Your task to perform on an android device: change notifications settings Image 0: 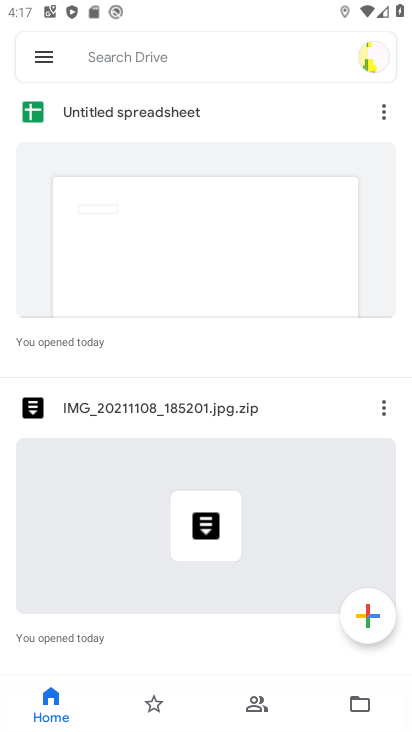
Step 0: press home button
Your task to perform on an android device: change notifications settings Image 1: 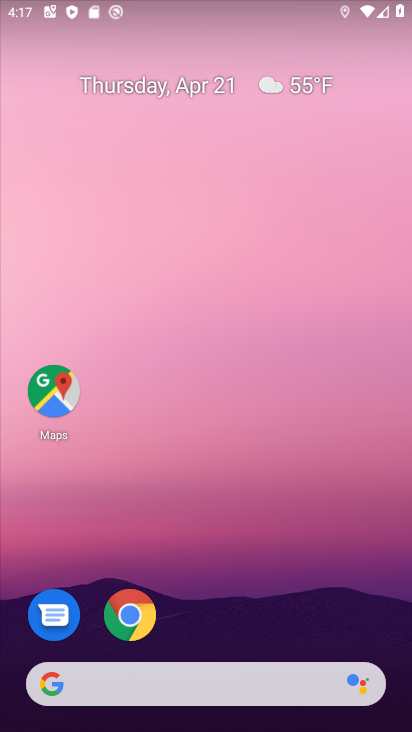
Step 1: drag from (230, 620) to (211, 122)
Your task to perform on an android device: change notifications settings Image 2: 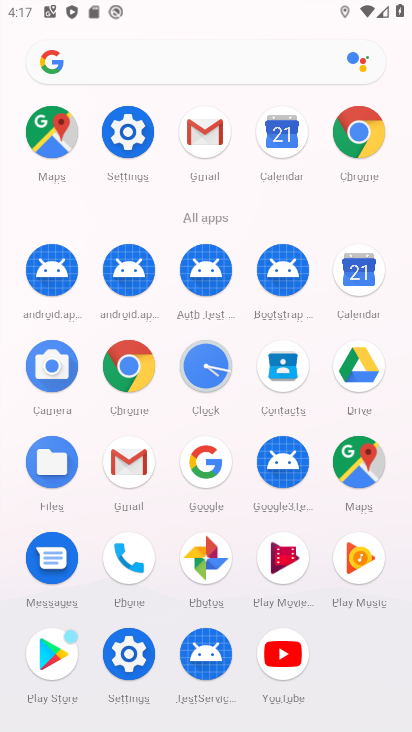
Step 2: click (138, 146)
Your task to perform on an android device: change notifications settings Image 3: 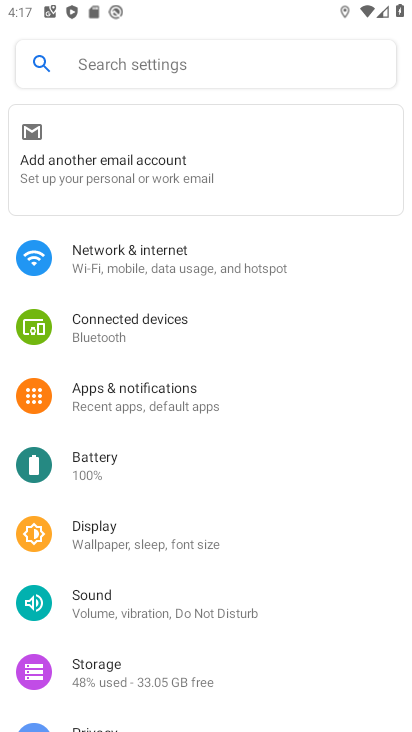
Step 3: click (152, 403)
Your task to perform on an android device: change notifications settings Image 4: 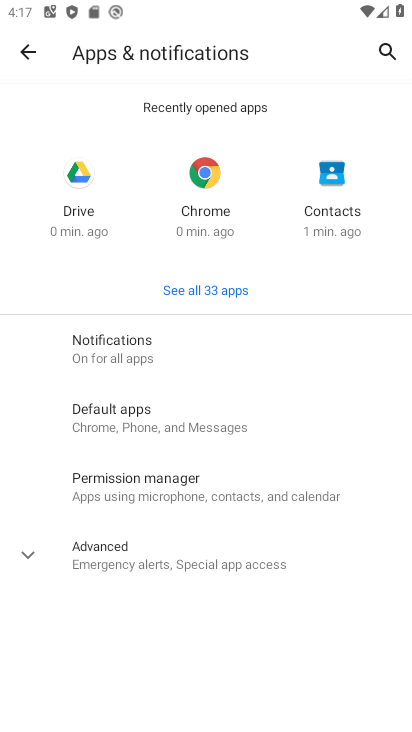
Step 4: click (141, 367)
Your task to perform on an android device: change notifications settings Image 5: 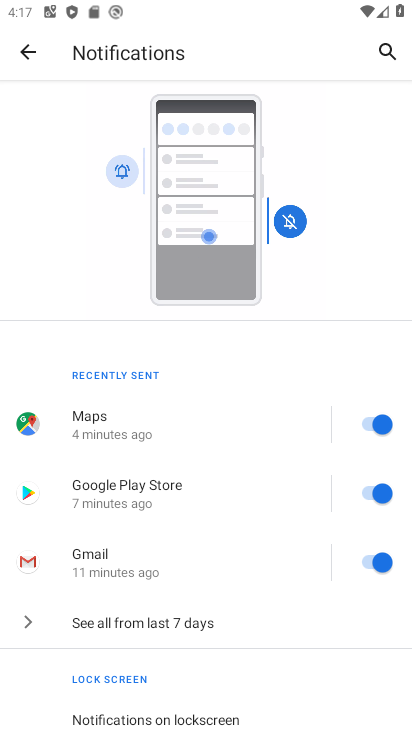
Step 5: drag from (225, 581) to (239, 177)
Your task to perform on an android device: change notifications settings Image 6: 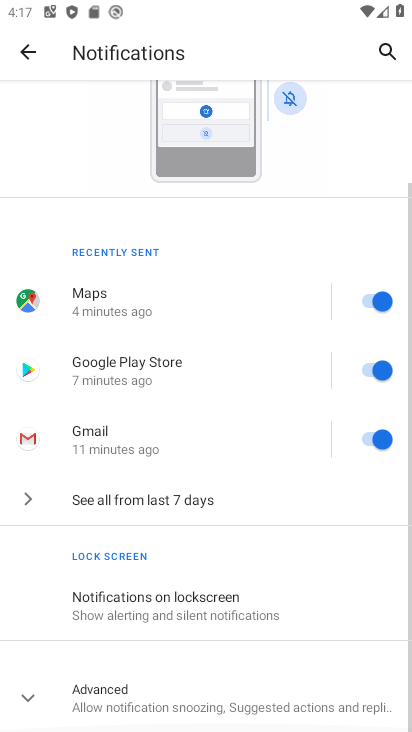
Step 6: drag from (251, 525) to (266, 249)
Your task to perform on an android device: change notifications settings Image 7: 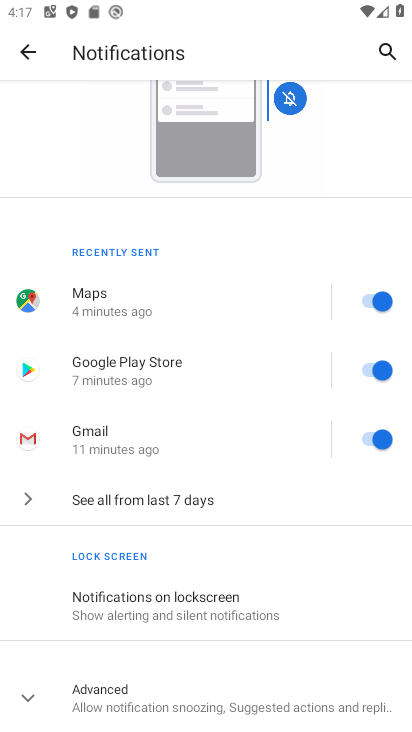
Step 7: click (202, 683)
Your task to perform on an android device: change notifications settings Image 8: 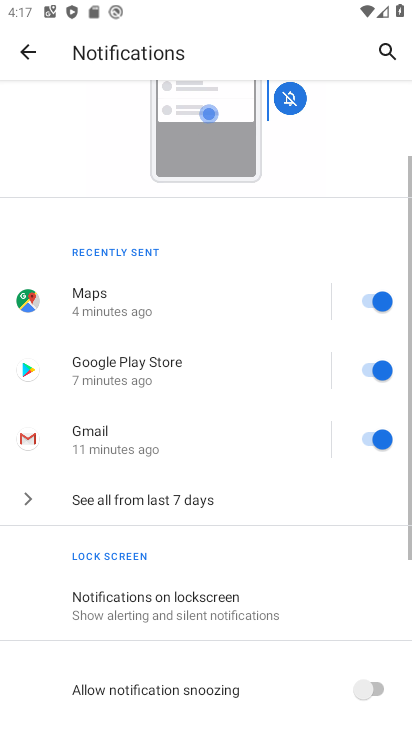
Step 8: drag from (207, 680) to (247, 255)
Your task to perform on an android device: change notifications settings Image 9: 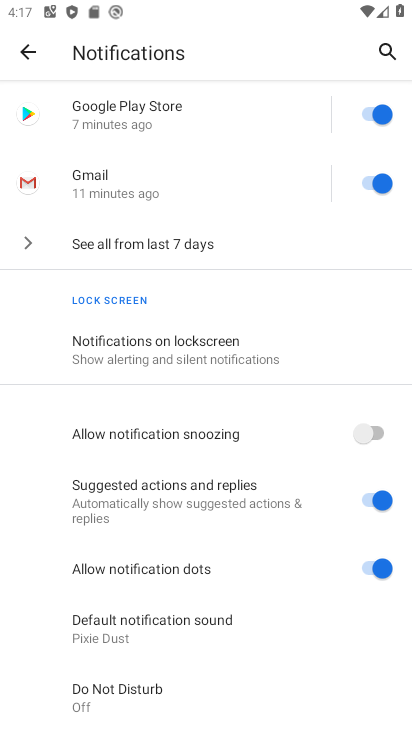
Step 9: drag from (211, 270) to (228, 667)
Your task to perform on an android device: change notifications settings Image 10: 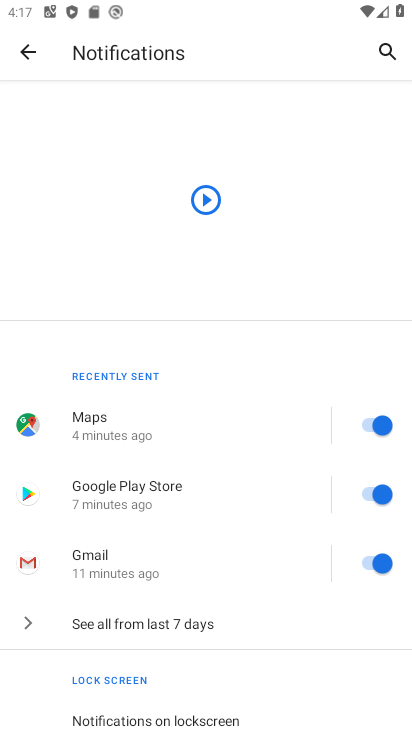
Step 10: drag from (323, 275) to (324, 595)
Your task to perform on an android device: change notifications settings Image 11: 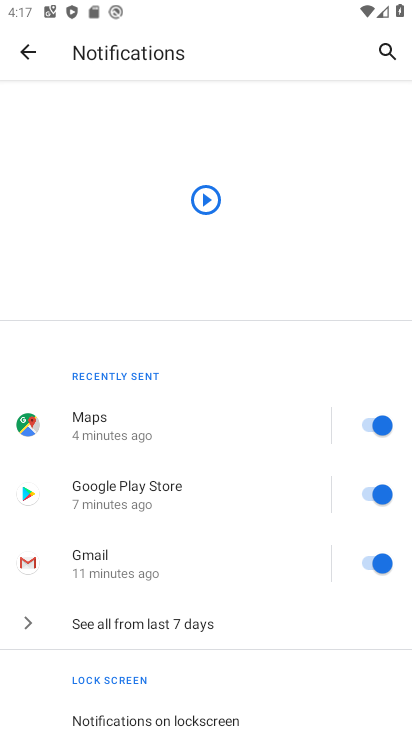
Step 11: drag from (313, 348) to (313, 668)
Your task to perform on an android device: change notifications settings Image 12: 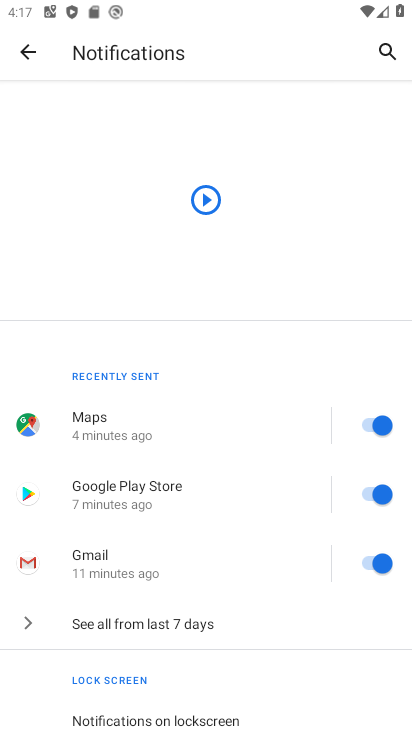
Step 12: drag from (257, 576) to (265, 209)
Your task to perform on an android device: change notifications settings Image 13: 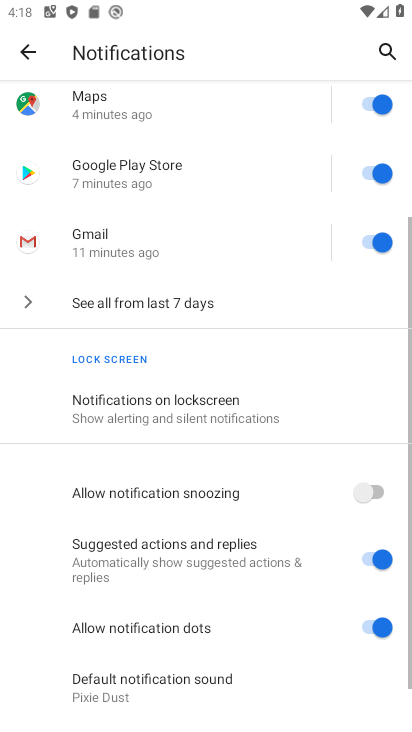
Step 13: drag from (283, 514) to (275, 335)
Your task to perform on an android device: change notifications settings Image 14: 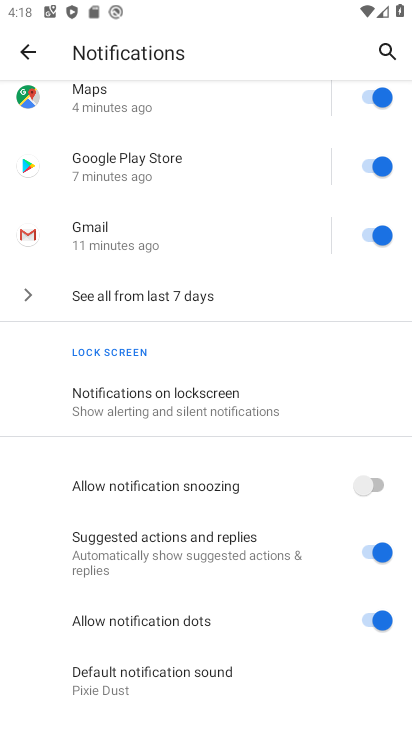
Step 14: click (259, 375)
Your task to perform on an android device: change notifications settings Image 15: 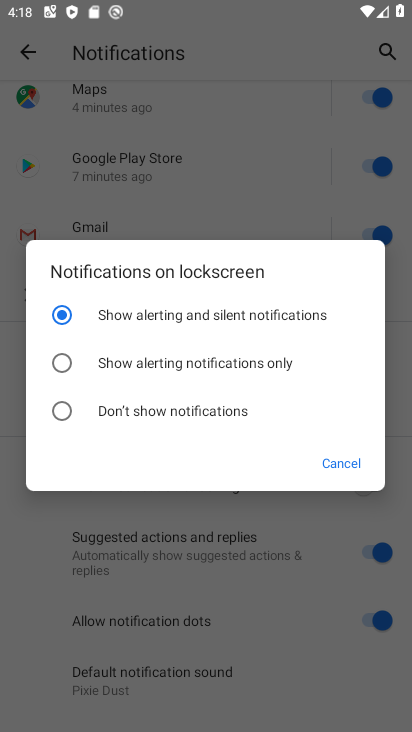
Step 15: click (227, 397)
Your task to perform on an android device: change notifications settings Image 16: 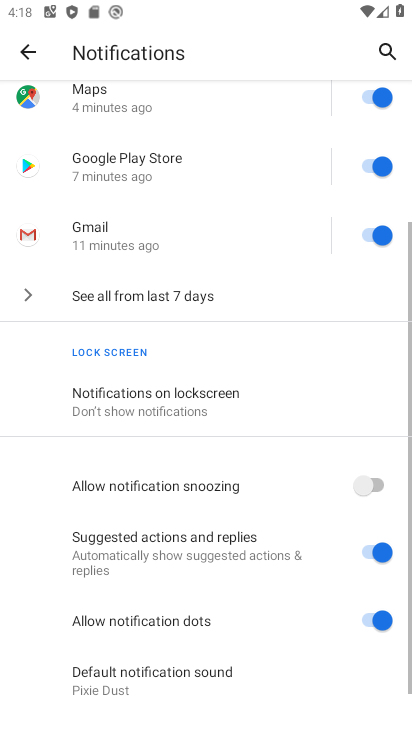
Step 16: task complete